Your task to perform on an android device: open device folders in google photos Image 0: 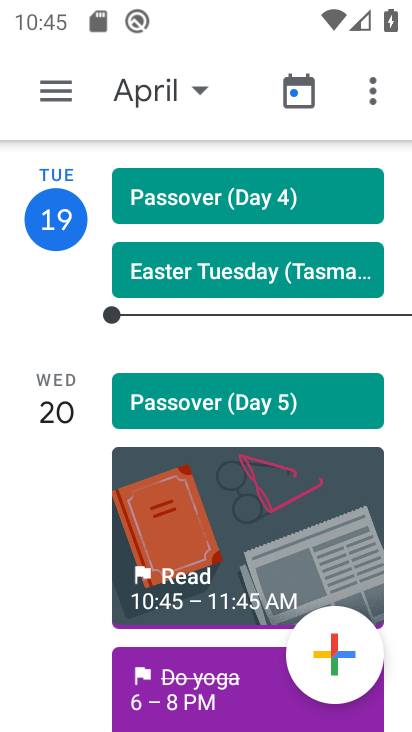
Step 0: press home button
Your task to perform on an android device: open device folders in google photos Image 1: 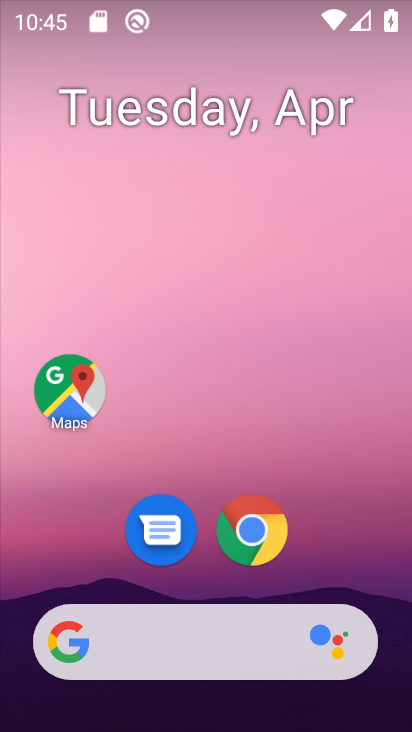
Step 1: drag from (170, 636) to (338, 54)
Your task to perform on an android device: open device folders in google photos Image 2: 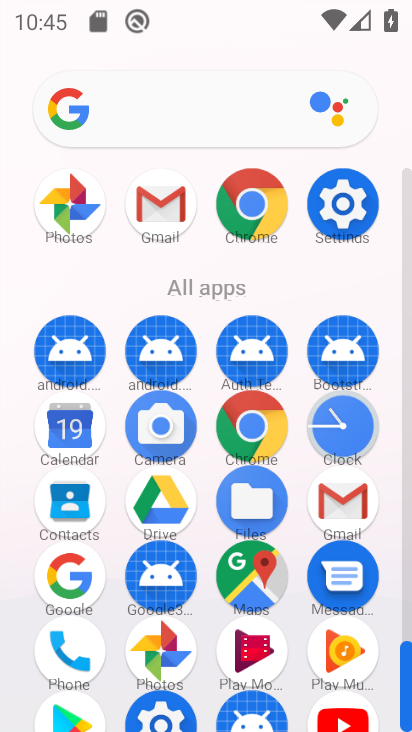
Step 2: click (163, 653)
Your task to perform on an android device: open device folders in google photos Image 3: 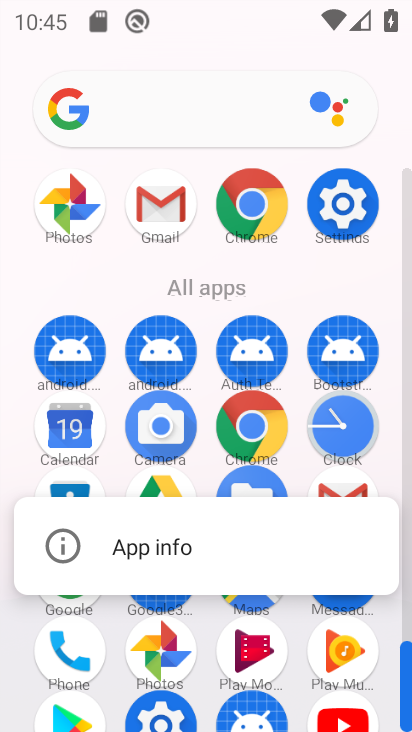
Step 3: click (153, 658)
Your task to perform on an android device: open device folders in google photos Image 4: 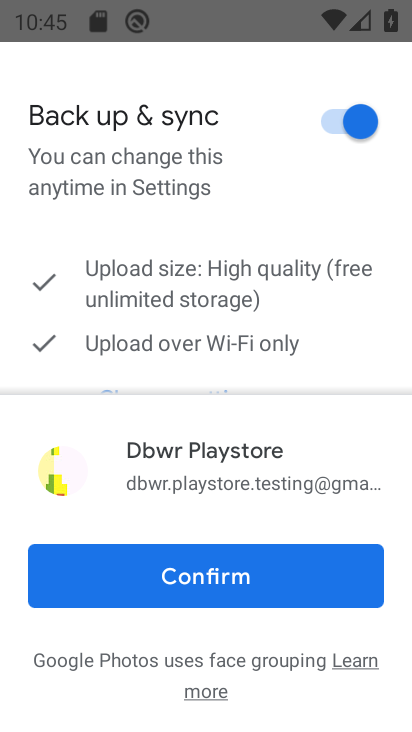
Step 4: click (213, 579)
Your task to perform on an android device: open device folders in google photos Image 5: 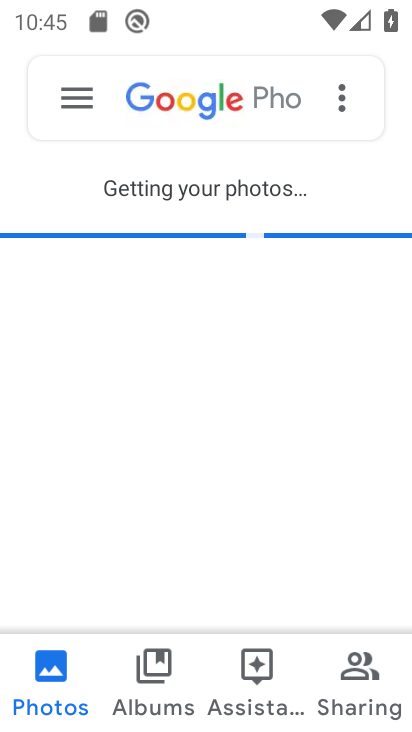
Step 5: click (74, 98)
Your task to perform on an android device: open device folders in google photos Image 6: 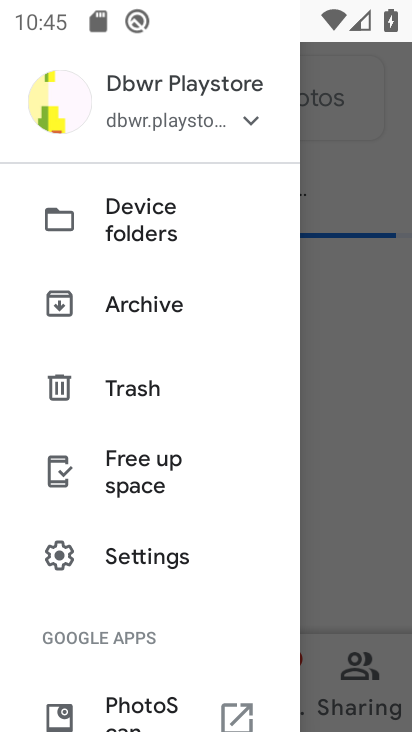
Step 6: click (148, 219)
Your task to perform on an android device: open device folders in google photos Image 7: 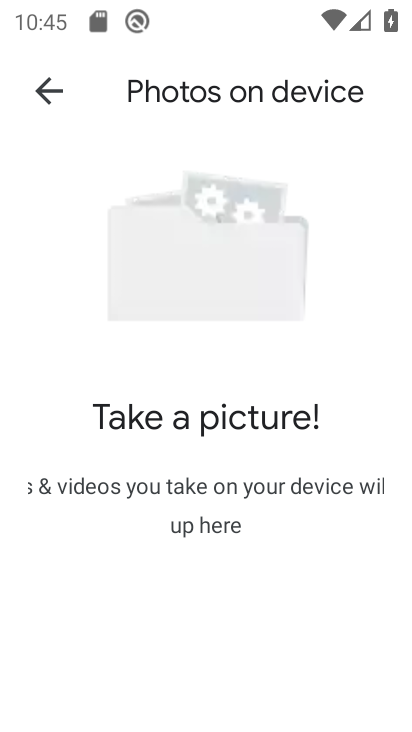
Step 7: task complete